Your task to perform on an android device: Is it going to rain today? Image 0: 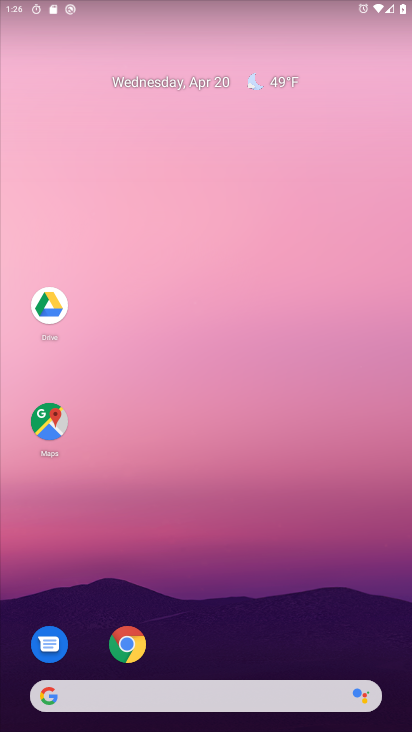
Step 0: click (273, 76)
Your task to perform on an android device: Is it going to rain today? Image 1: 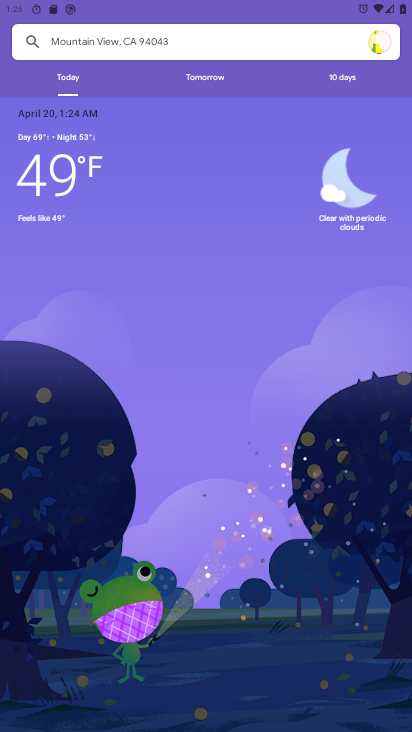
Step 1: drag from (228, 472) to (210, 202)
Your task to perform on an android device: Is it going to rain today? Image 2: 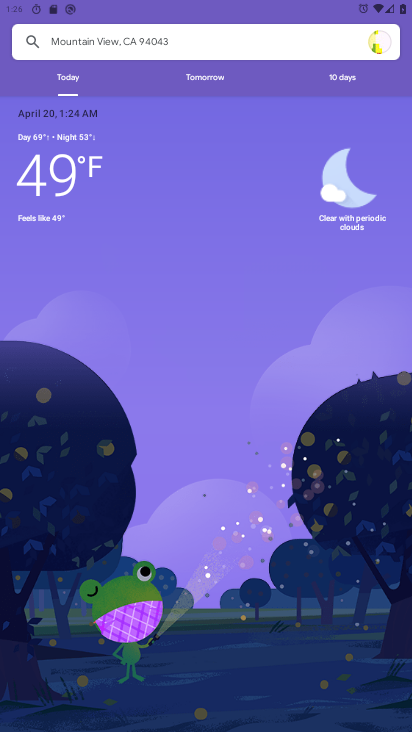
Step 2: click (344, 190)
Your task to perform on an android device: Is it going to rain today? Image 3: 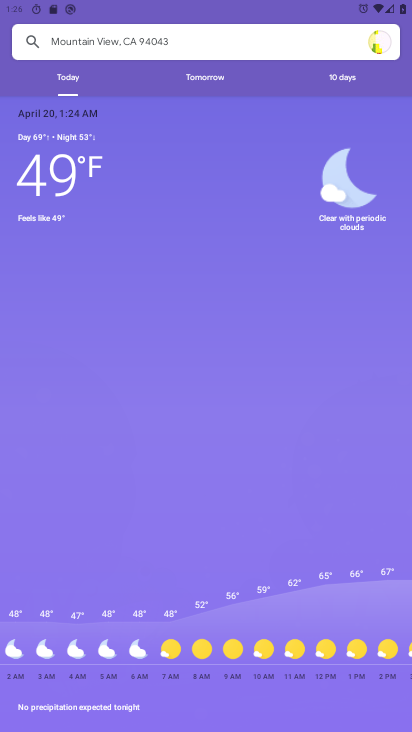
Step 3: task complete